Your task to perform on an android device: visit the assistant section in the google photos Image 0: 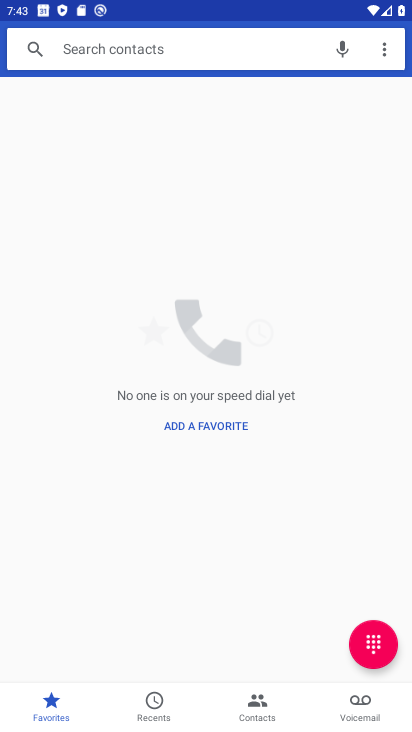
Step 0: press home button
Your task to perform on an android device: visit the assistant section in the google photos Image 1: 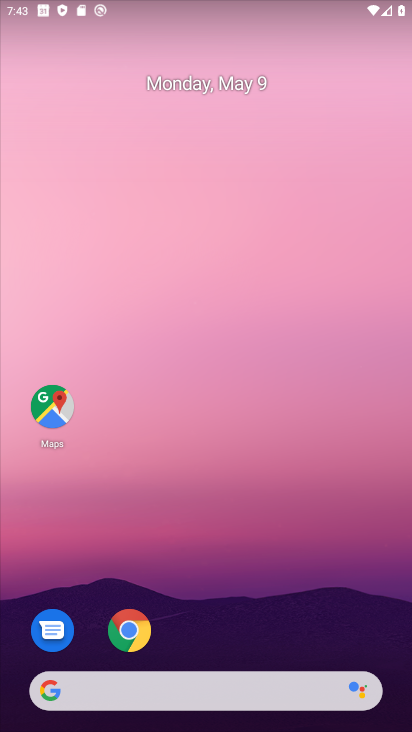
Step 1: drag from (331, 634) to (279, 135)
Your task to perform on an android device: visit the assistant section in the google photos Image 2: 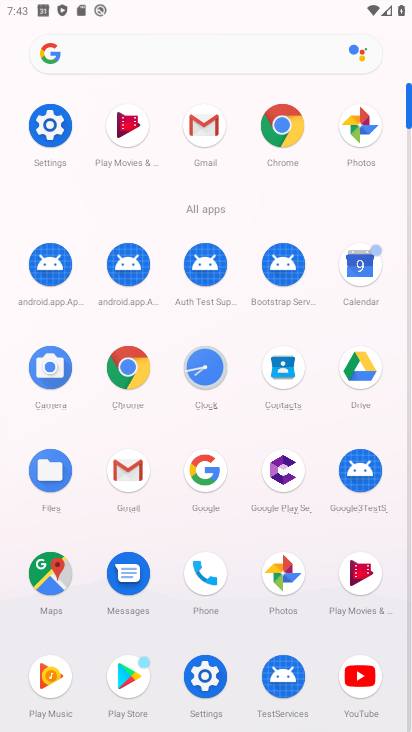
Step 2: click (283, 579)
Your task to perform on an android device: visit the assistant section in the google photos Image 3: 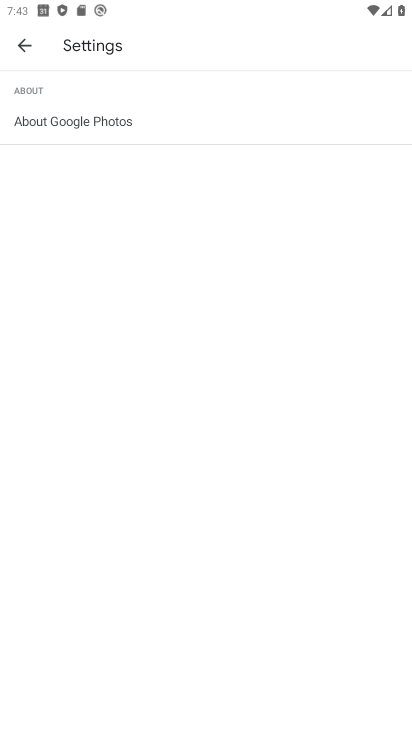
Step 3: click (10, 42)
Your task to perform on an android device: visit the assistant section in the google photos Image 4: 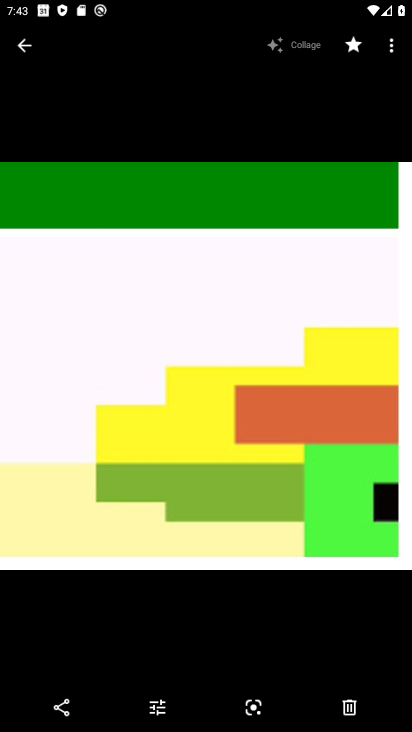
Step 4: click (38, 38)
Your task to perform on an android device: visit the assistant section in the google photos Image 5: 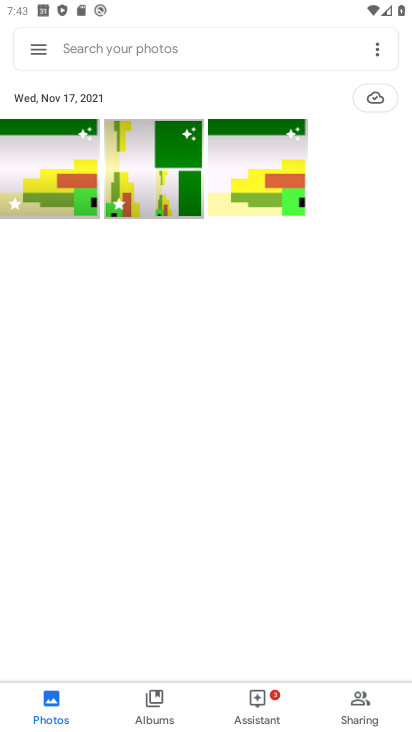
Step 5: click (177, 41)
Your task to perform on an android device: visit the assistant section in the google photos Image 6: 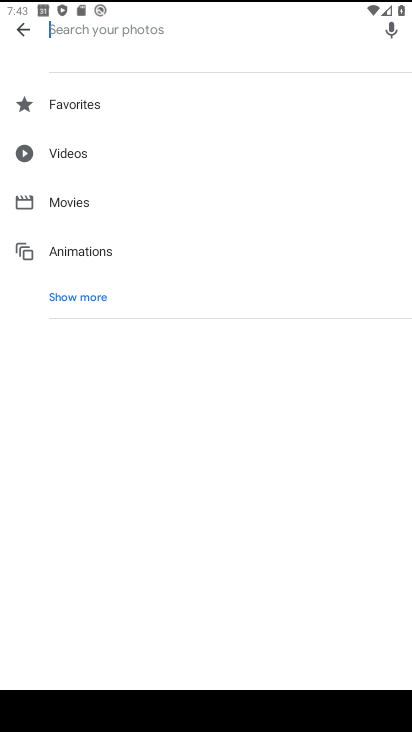
Step 6: click (6, 26)
Your task to perform on an android device: visit the assistant section in the google photos Image 7: 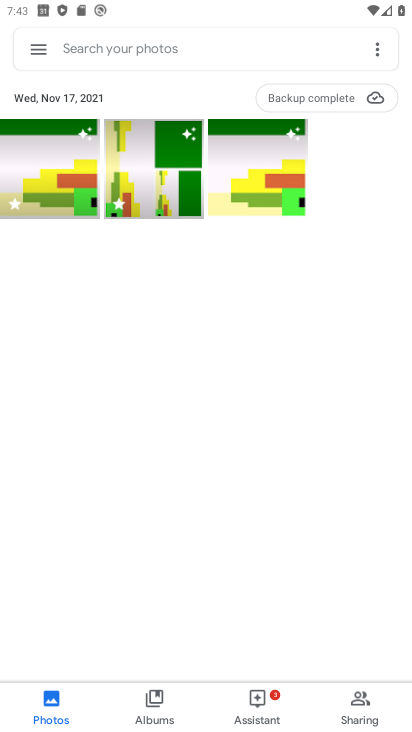
Step 7: click (262, 712)
Your task to perform on an android device: visit the assistant section in the google photos Image 8: 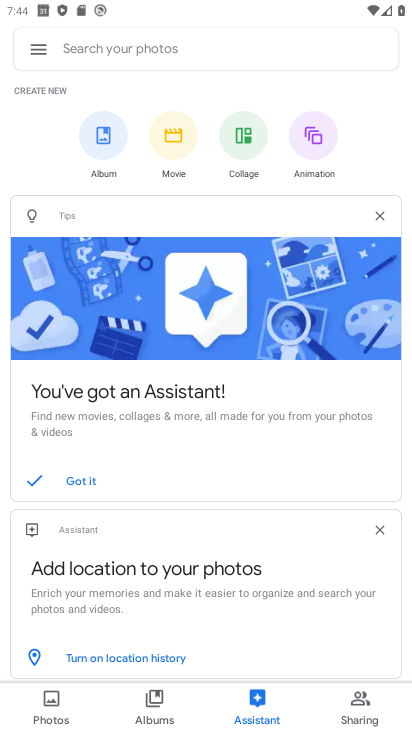
Step 8: task complete